Your task to perform on an android device: When is my next appointment? Image 0: 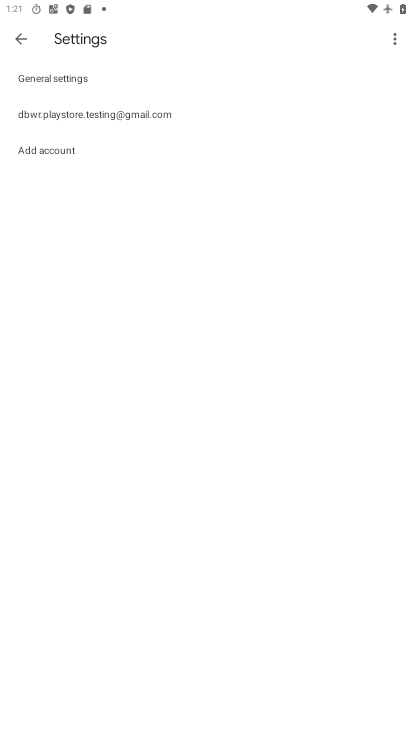
Step 0: press home button
Your task to perform on an android device: When is my next appointment? Image 1: 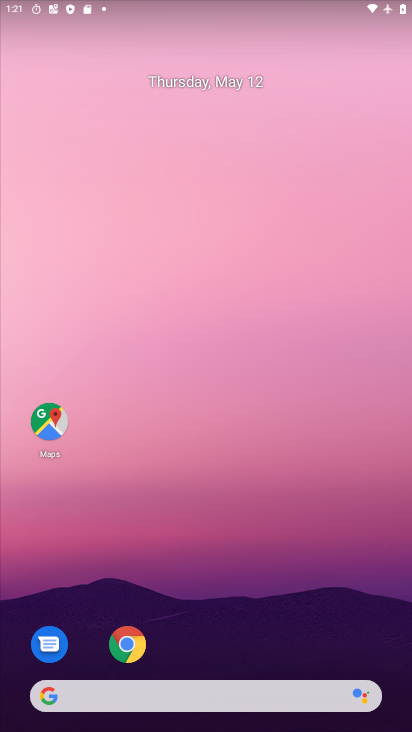
Step 1: click (231, 85)
Your task to perform on an android device: When is my next appointment? Image 2: 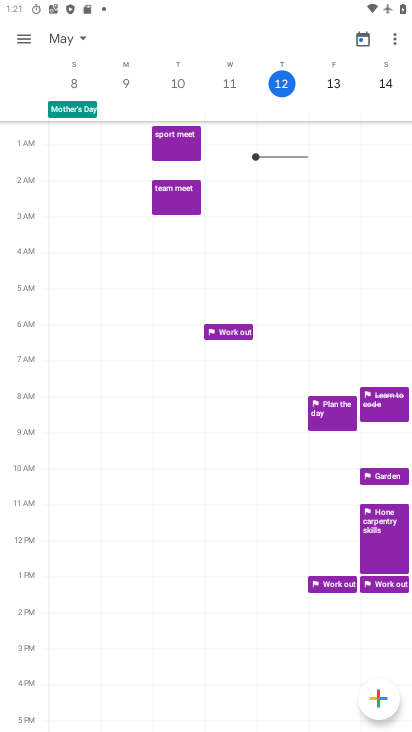
Step 2: click (324, 79)
Your task to perform on an android device: When is my next appointment? Image 3: 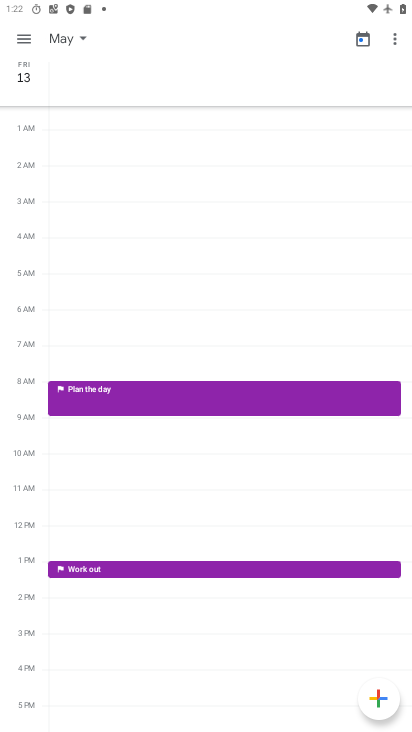
Step 3: click (78, 39)
Your task to perform on an android device: When is my next appointment? Image 4: 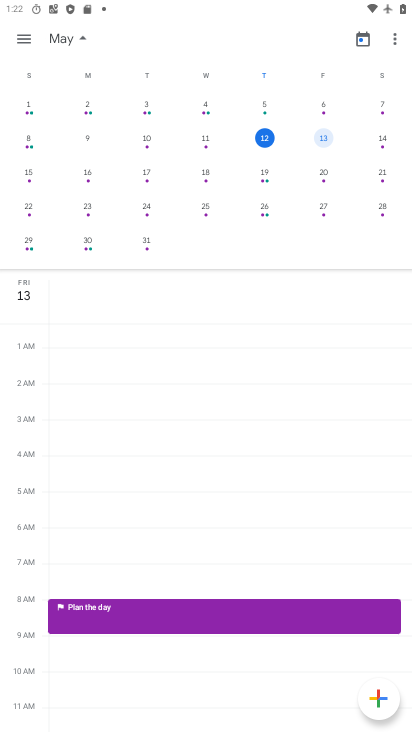
Step 4: click (265, 137)
Your task to perform on an android device: When is my next appointment? Image 5: 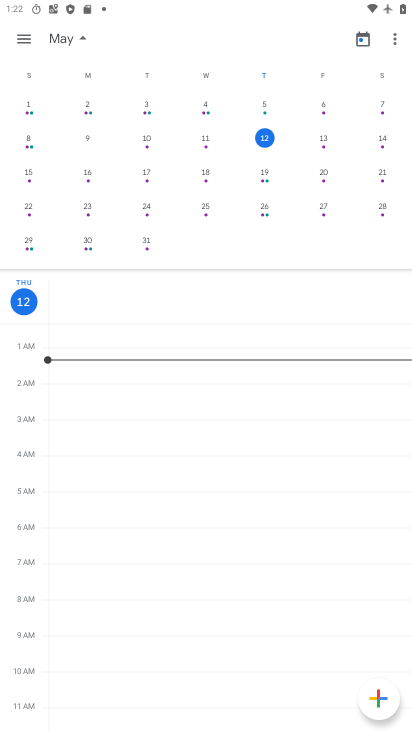
Step 5: task complete